Your task to perform on an android device: turn on location history Image 0: 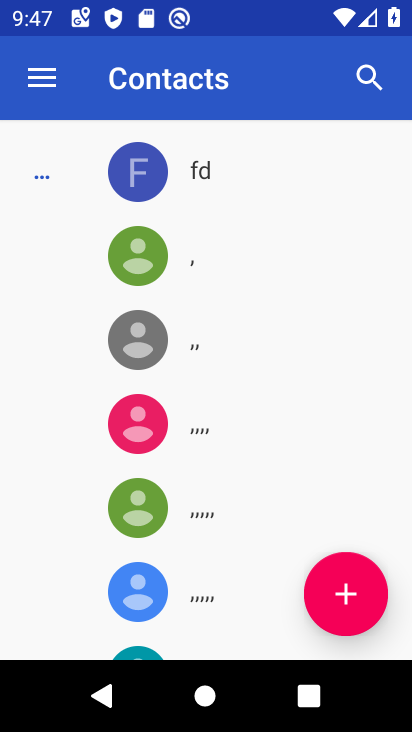
Step 0: press home button
Your task to perform on an android device: turn on location history Image 1: 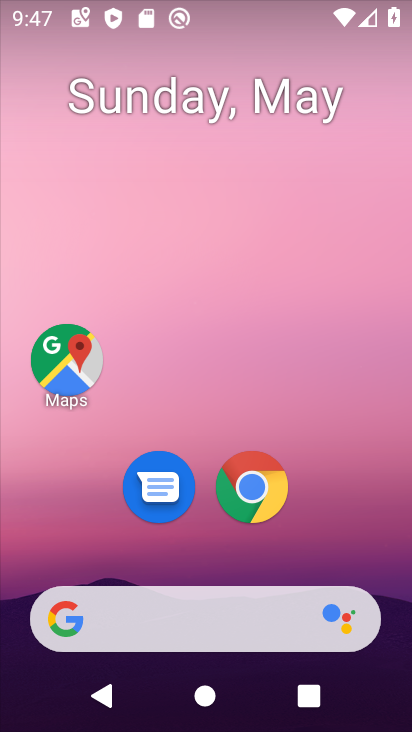
Step 1: drag from (378, 566) to (339, 176)
Your task to perform on an android device: turn on location history Image 2: 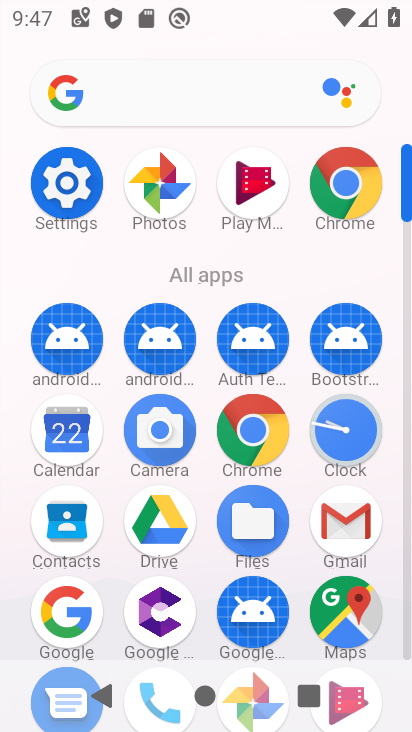
Step 2: click (53, 200)
Your task to perform on an android device: turn on location history Image 3: 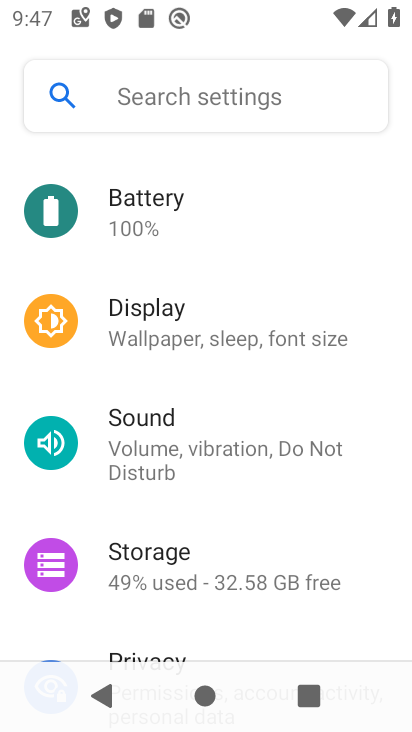
Step 3: drag from (362, 251) to (351, 399)
Your task to perform on an android device: turn on location history Image 4: 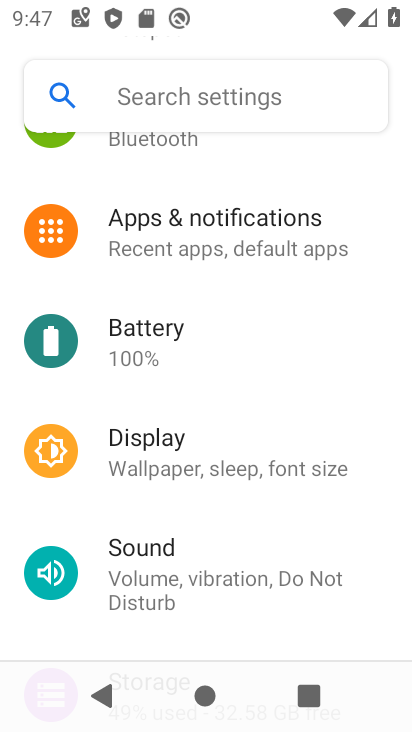
Step 4: drag from (374, 246) to (363, 400)
Your task to perform on an android device: turn on location history Image 5: 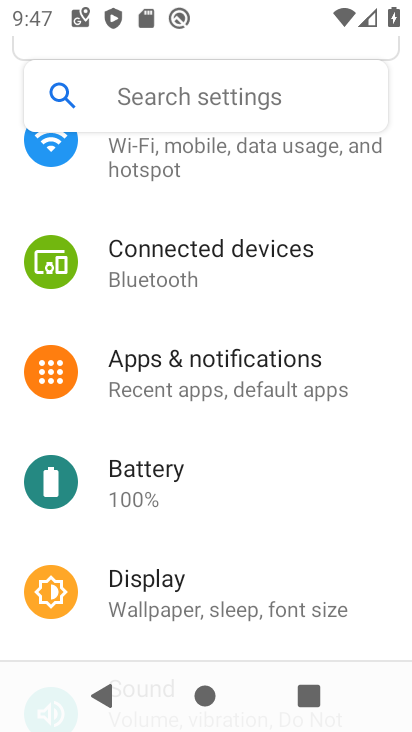
Step 5: drag from (358, 228) to (357, 386)
Your task to perform on an android device: turn on location history Image 6: 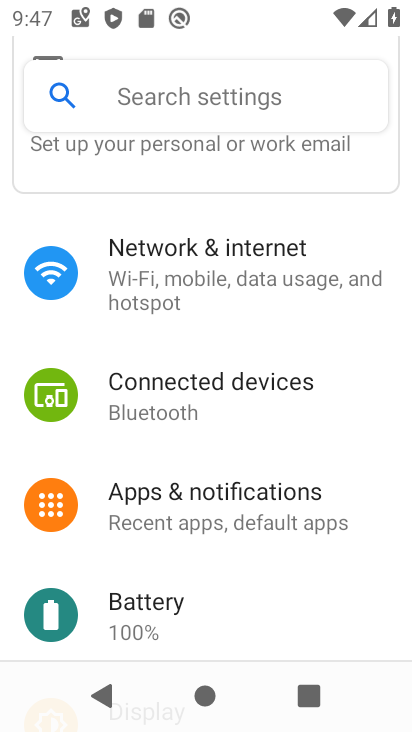
Step 6: drag from (366, 234) to (361, 416)
Your task to perform on an android device: turn on location history Image 7: 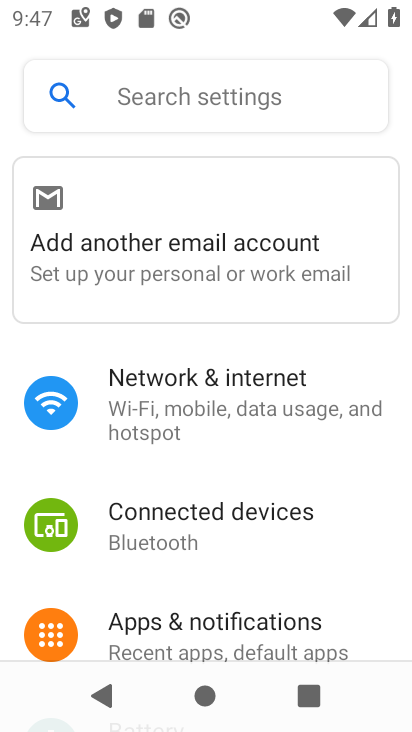
Step 7: drag from (357, 437) to (366, 288)
Your task to perform on an android device: turn on location history Image 8: 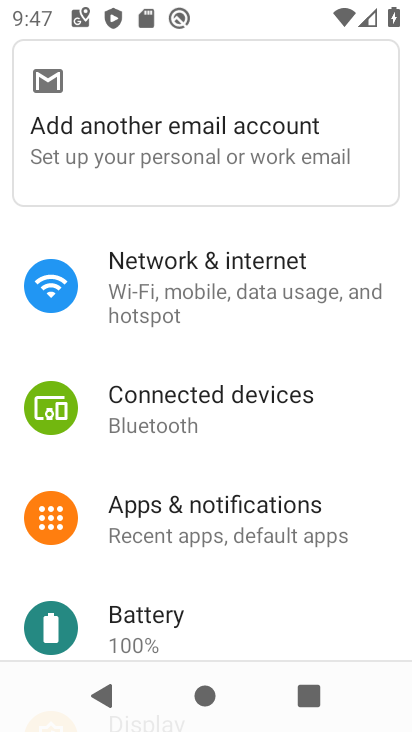
Step 8: drag from (366, 424) to (374, 306)
Your task to perform on an android device: turn on location history Image 9: 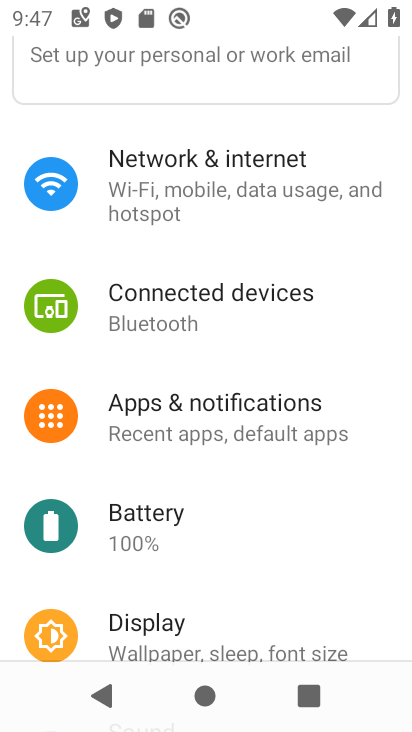
Step 9: drag from (355, 448) to (361, 299)
Your task to perform on an android device: turn on location history Image 10: 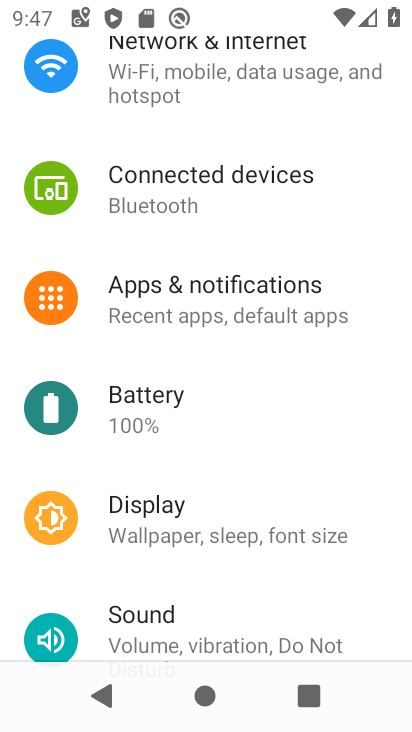
Step 10: drag from (336, 494) to (354, 344)
Your task to perform on an android device: turn on location history Image 11: 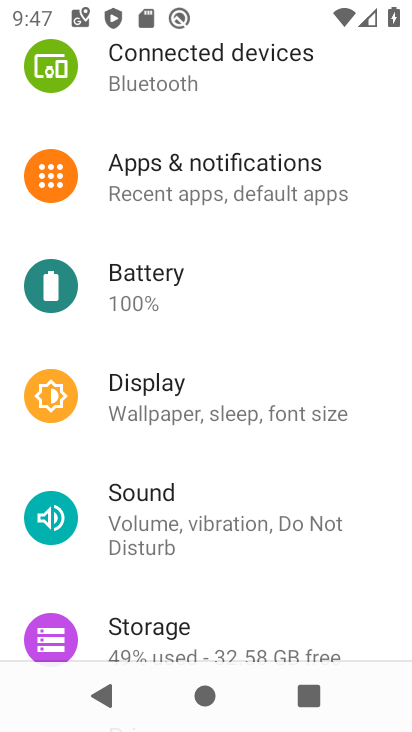
Step 11: drag from (352, 513) to (361, 393)
Your task to perform on an android device: turn on location history Image 12: 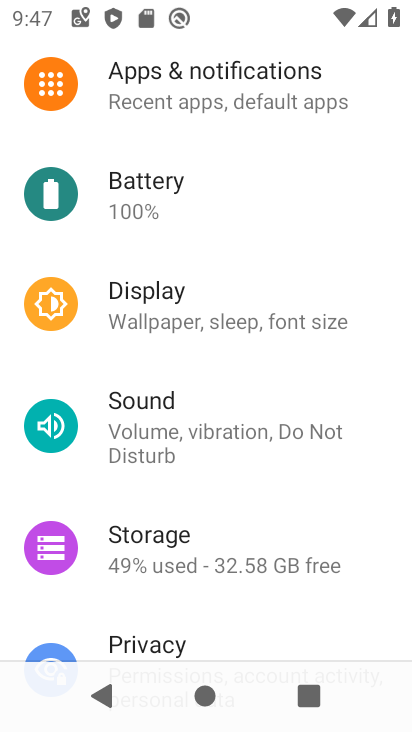
Step 12: drag from (363, 546) to (382, 380)
Your task to perform on an android device: turn on location history Image 13: 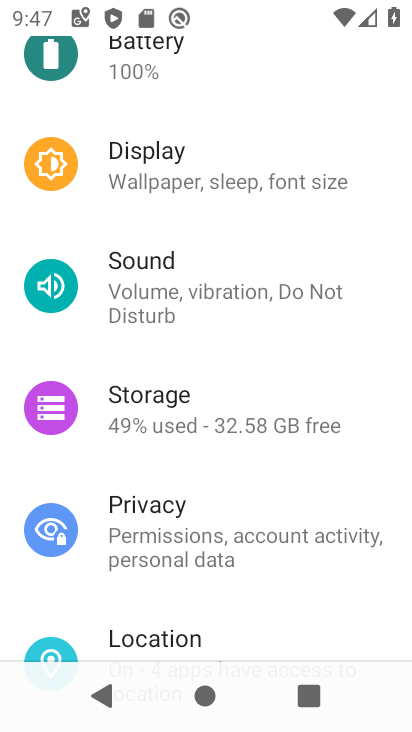
Step 13: drag from (350, 552) to (362, 430)
Your task to perform on an android device: turn on location history Image 14: 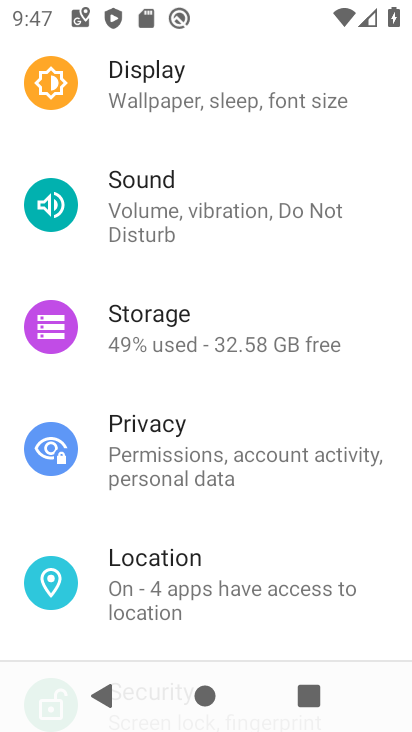
Step 14: click (312, 581)
Your task to perform on an android device: turn on location history Image 15: 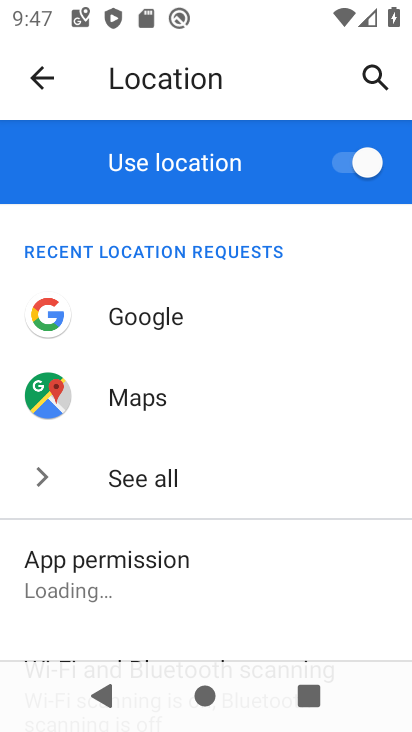
Step 15: drag from (312, 575) to (336, 432)
Your task to perform on an android device: turn on location history Image 16: 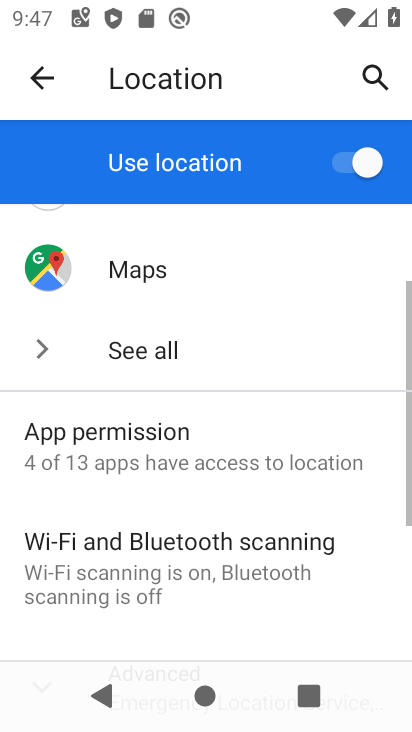
Step 16: drag from (319, 567) to (332, 407)
Your task to perform on an android device: turn on location history Image 17: 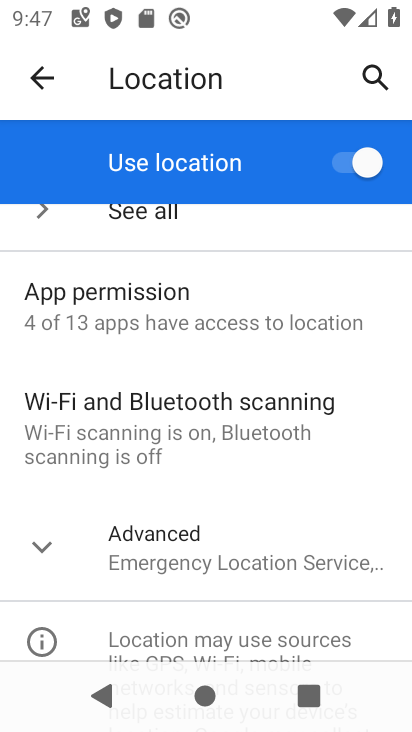
Step 17: click (295, 561)
Your task to perform on an android device: turn on location history Image 18: 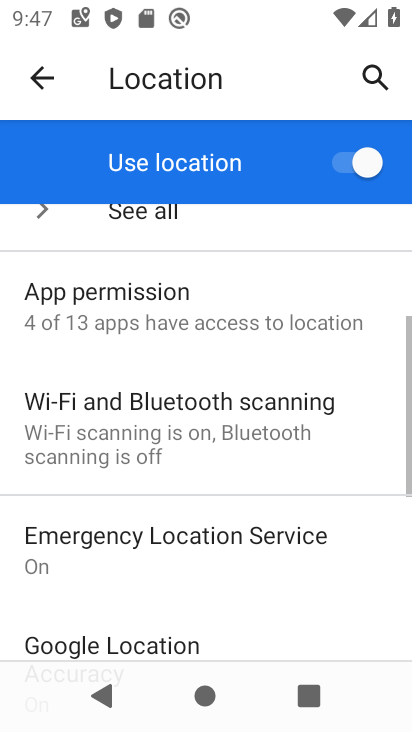
Step 18: drag from (320, 606) to (341, 437)
Your task to perform on an android device: turn on location history Image 19: 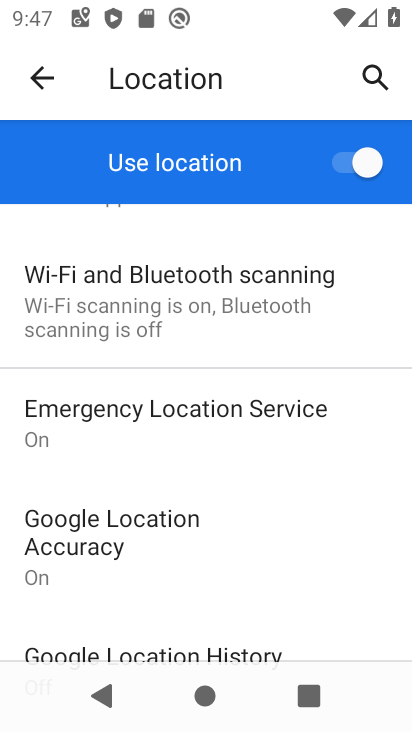
Step 19: drag from (326, 582) to (332, 461)
Your task to perform on an android device: turn on location history Image 20: 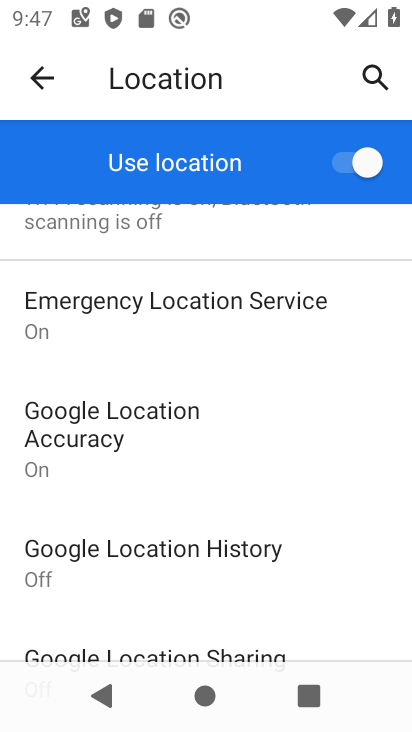
Step 20: click (291, 566)
Your task to perform on an android device: turn on location history Image 21: 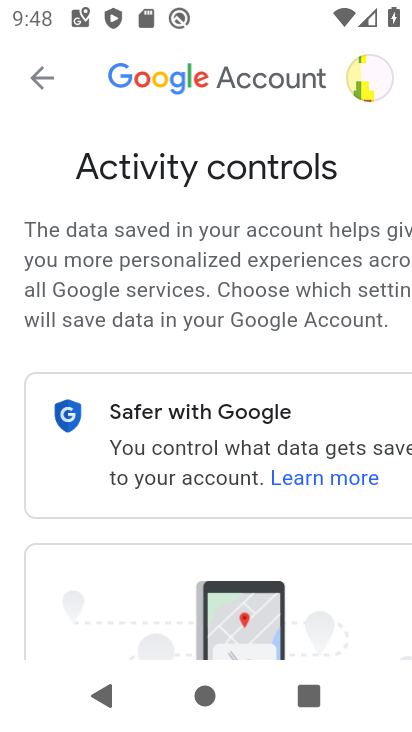
Step 21: task complete